Your task to perform on an android device: turn off smart reply in the gmail app Image 0: 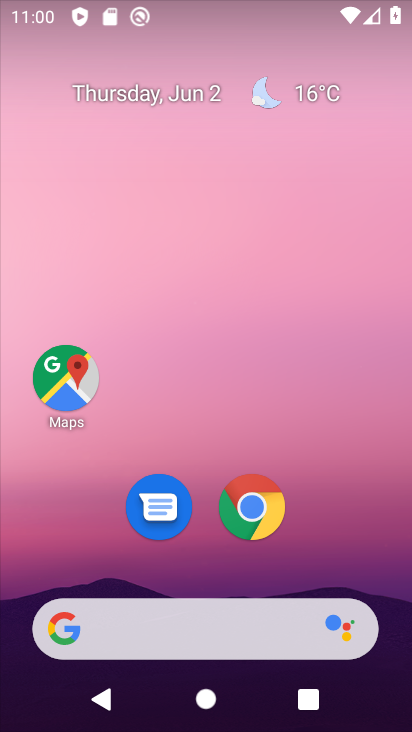
Step 0: drag from (363, 498) to (345, 176)
Your task to perform on an android device: turn off smart reply in the gmail app Image 1: 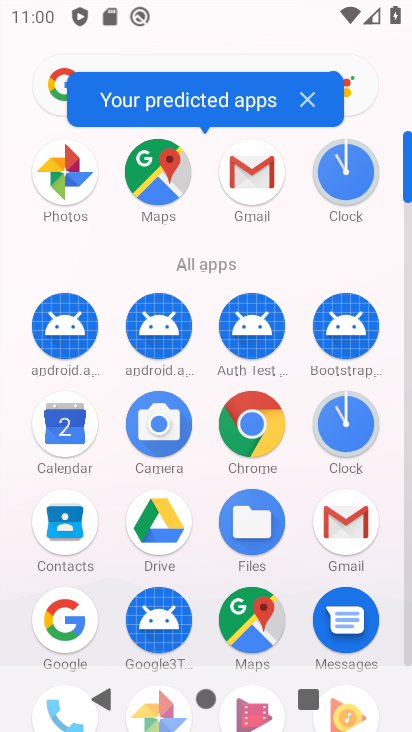
Step 1: click (336, 532)
Your task to perform on an android device: turn off smart reply in the gmail app Image 2: 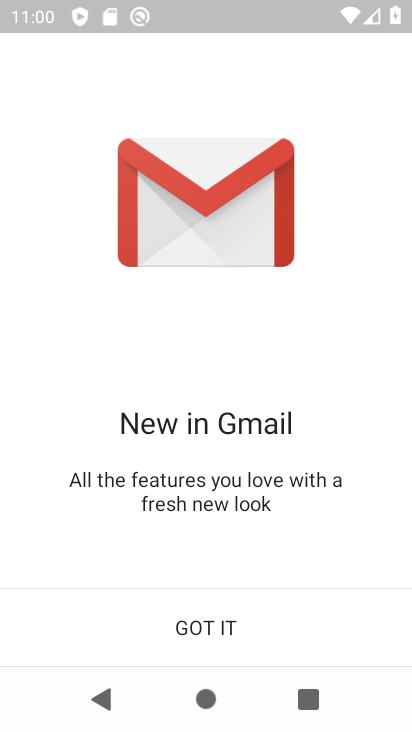
Step 2: click (234, 614)
Your task to perform on an android device: turn off smart reply in the gmail app Image 3: 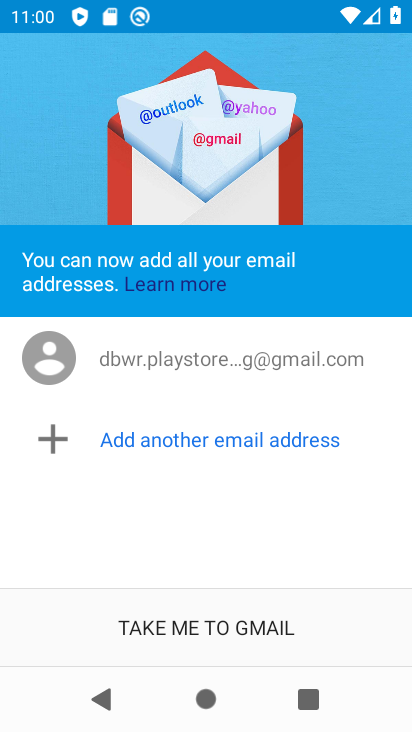
Step 3: click (236, 614)
Your task to perform on an android device: turn off smart reply in the gmail app Image 4: 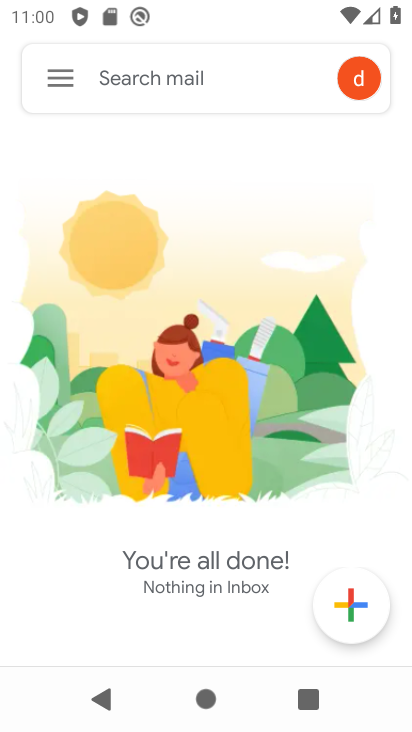
Step 4: click (75, 64)
Your task to perform on an android device: turn off smart reply in the gmail app Image 5: 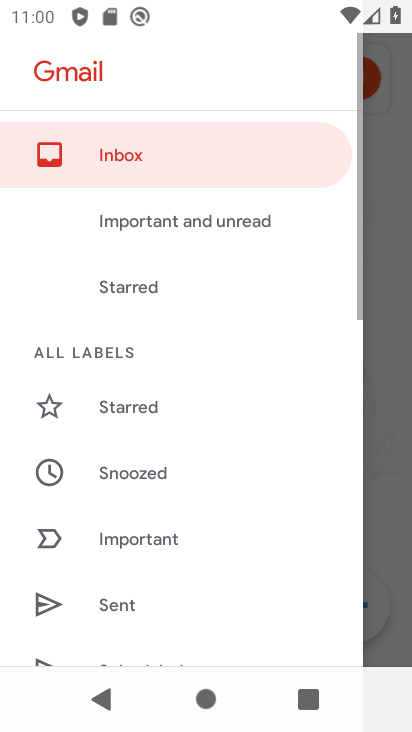
Step 5: drag from (90, 600) to (156, 114)
Your task to perform on an android device: turn off smart reply in the gmail app Image 6: 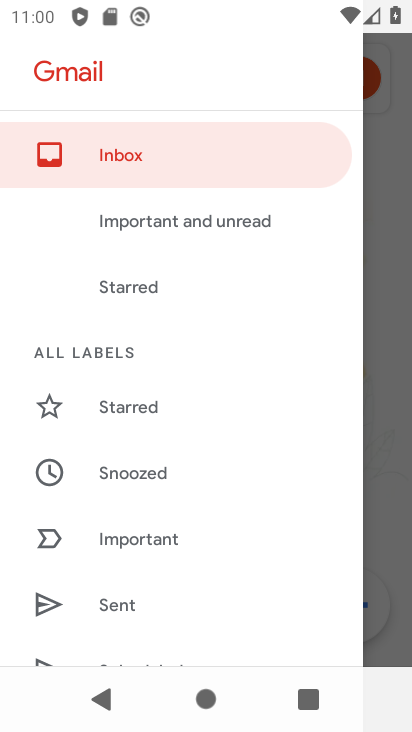
Step 6: drag from (161, 595) to (226, 219)
Your task to perform on an android device: turn off smart reply in the gmail app Image 7: 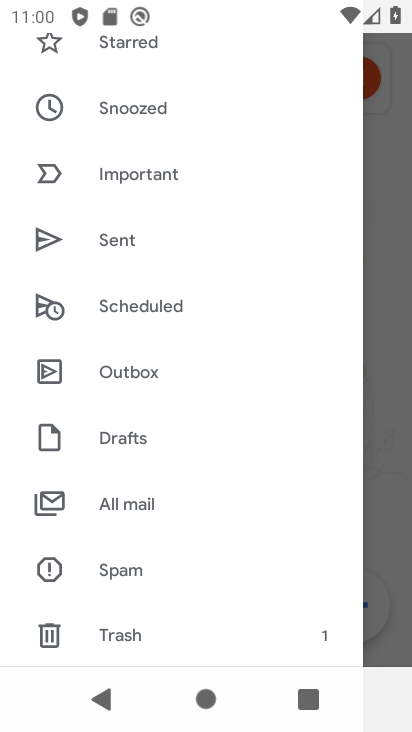
Step 7: drag from (214, 286) to (218, 43)
Your task to perform on an android device: turn off smart reply in the gmail app Image 8: 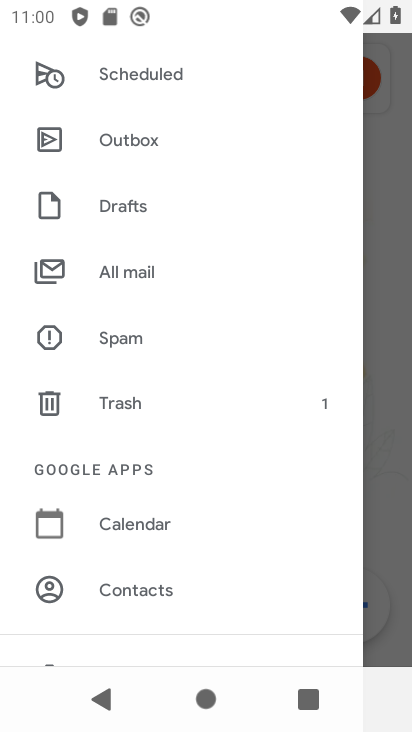
Step 8: drag from (160, 615) to (255, 177)
Your task to perform on an android device: turn off smart reply in the gmail app Image 9: 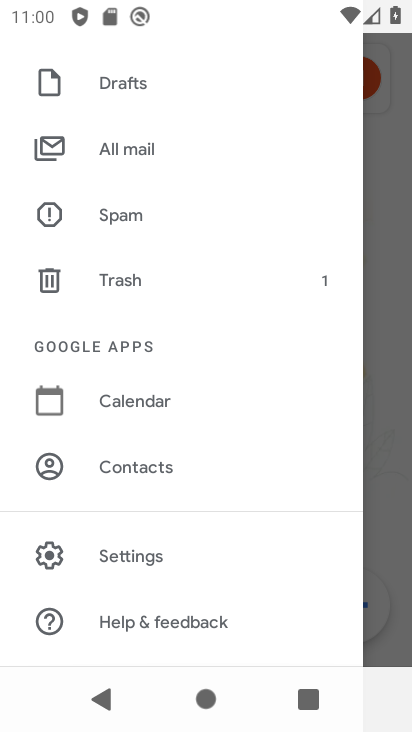
Step 9: click (159, 547)
Your task to perform on an android device: turn off smart reply in the gmail app Image 10: 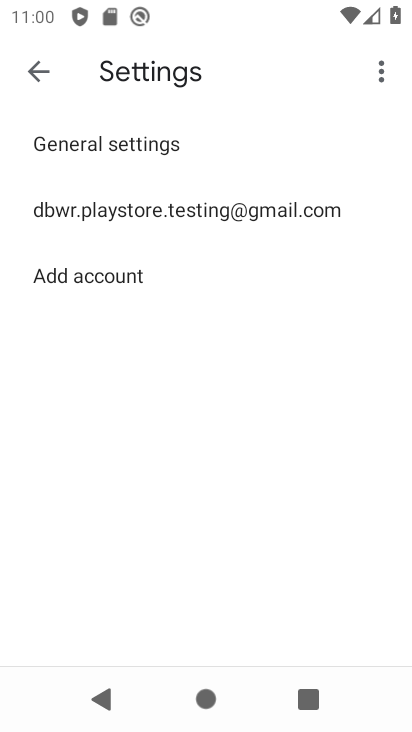
Step 10: click (245, 201)
Your task to perform on an android device: turn off smart reply in the gmail app Image 11: 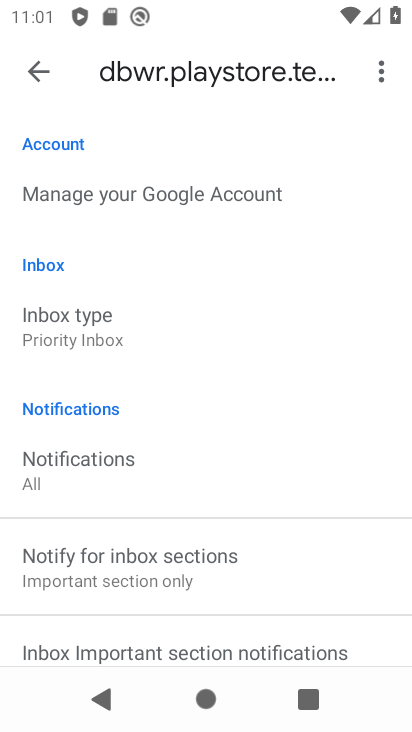
Step 11: drag from (224, 531) to (280, 276)
Your task to perform on an android device: turn off smart reply in the gmail app Image 12: 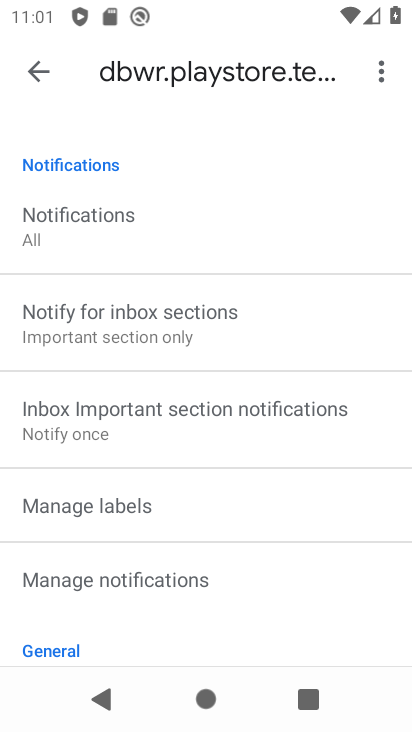
Step 12: drag from (208, 609) to (241, 263)
Your task to perform on an android device: turn off smart reply in the gmail app Image 13: 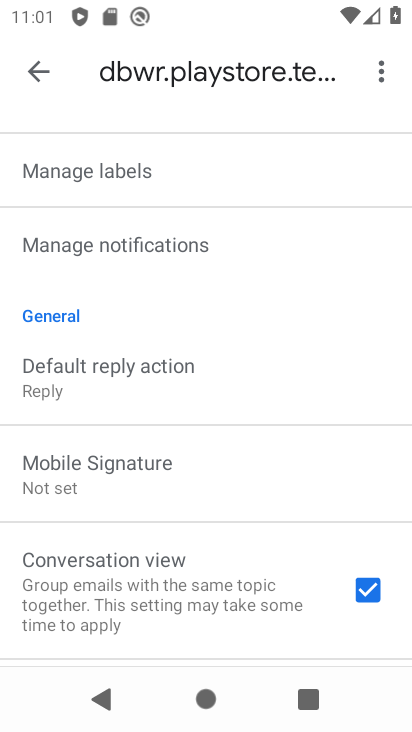
Step 13: drag from (235, 534) to (286, 229)
Your task to perform on an android device: turn off smart reply in the gmail app Image 14: 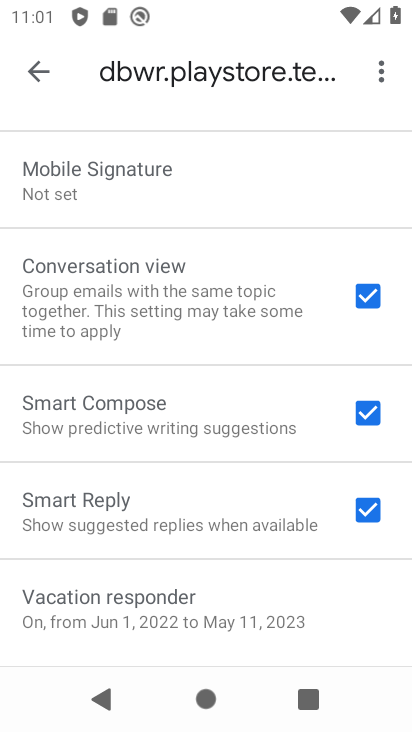
Step 14: click (369, 513)
Your task to perform on an android device: turn off smart reply in the gmail app Image 15: 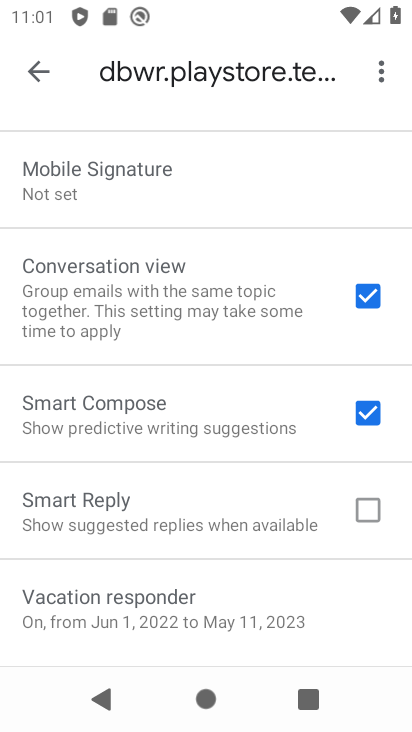
Step 15: task complete